Your task to perform on an android device: show emergency info Image 0: 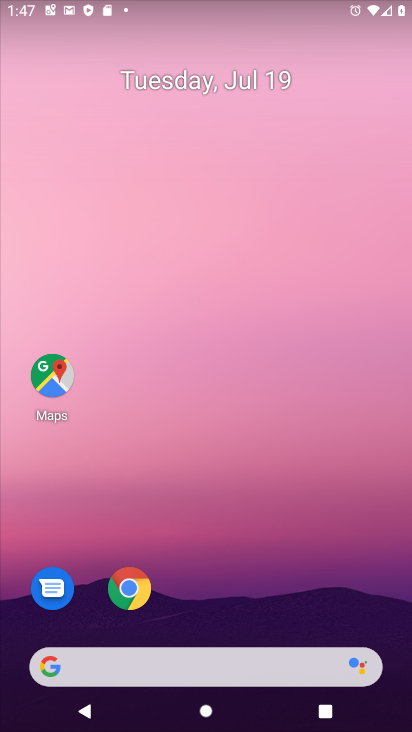
Step 0: drag from (368, 591) to (152, 33)
Your task to perform on an android device: show emergency info Image 1: 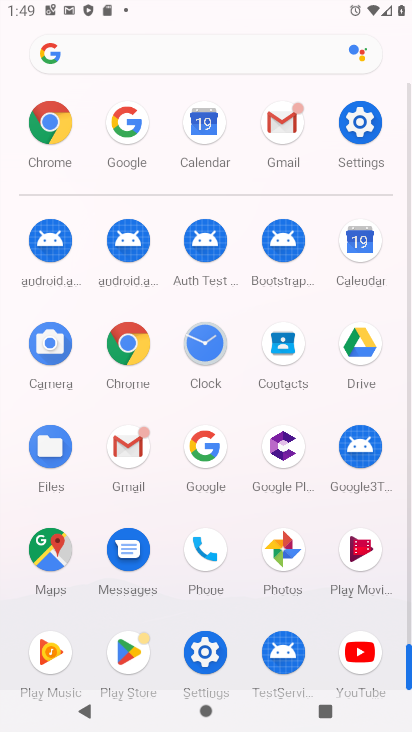
Step 1: click (209, 669)
Your task to perform on an android device: show emergency info Image 2: 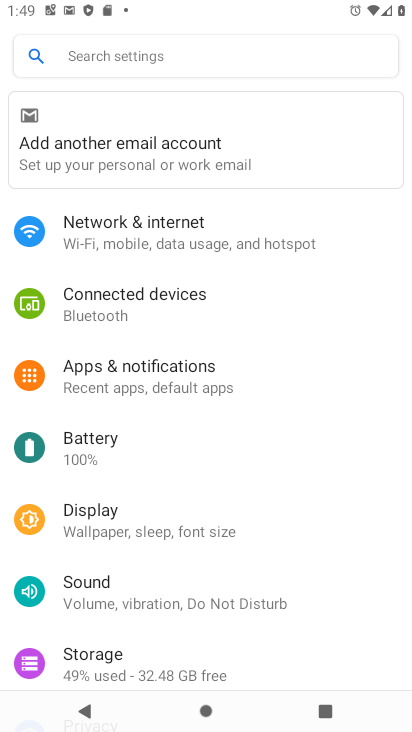
Step 2: drag from (188, 614) to (207, 158)
Your task to perform on an android device: show emergency info Image 3: 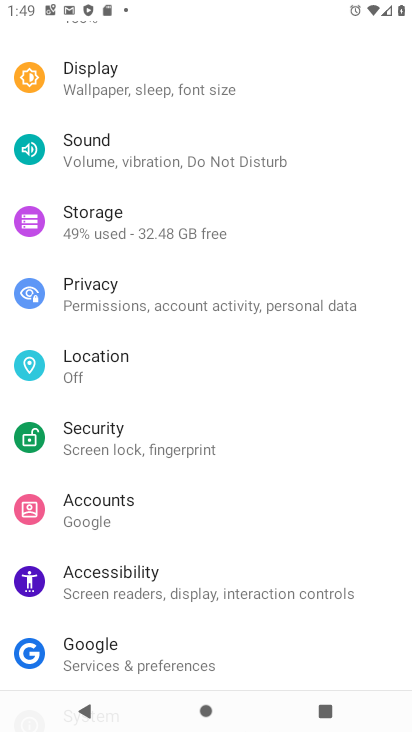
Step 3: drag from (251, 635) to (271, 126)
Your task to perform on an android device: show emergency info Image 4: 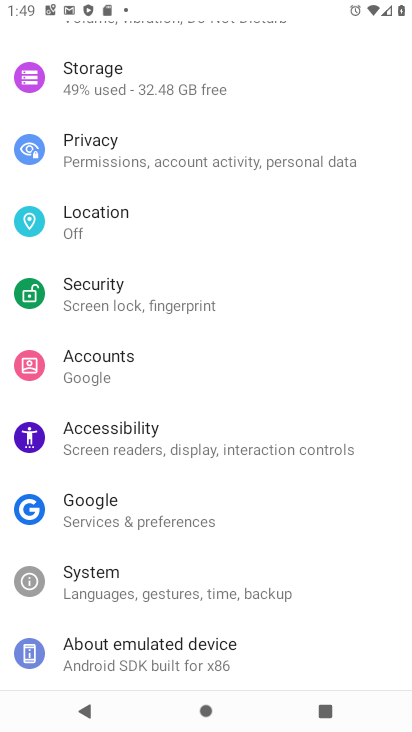
Step 4: click (158, 639)
Your task to perform on an android device: show emergency info Image 5: 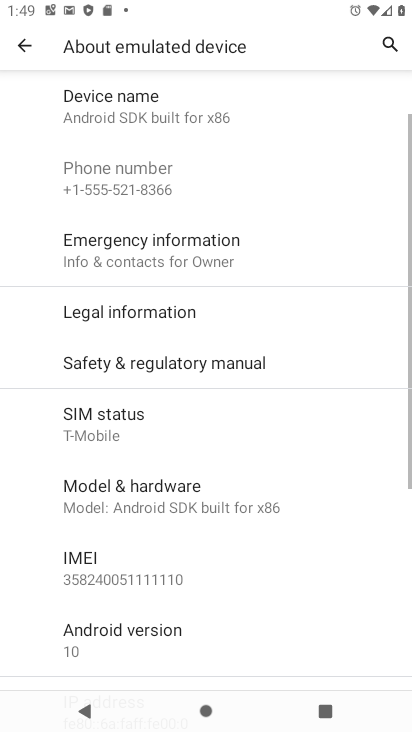
Step 5: click (106, 251)
Your task to perform on an android device: show emergency info Image 6: 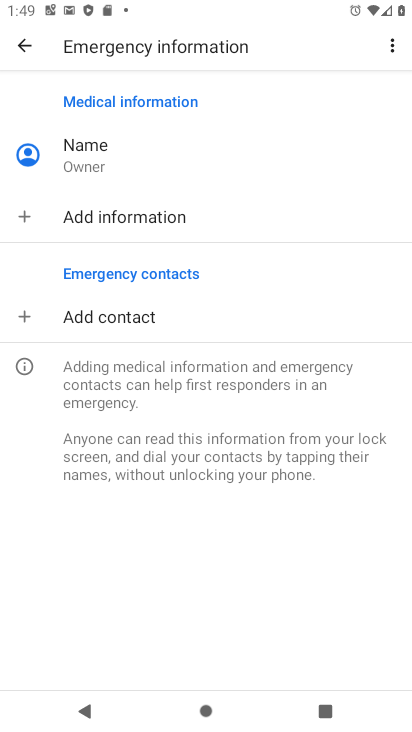
Step 6: task complete